Your task to perform on an android device: open sync settings in chrome Image 0: 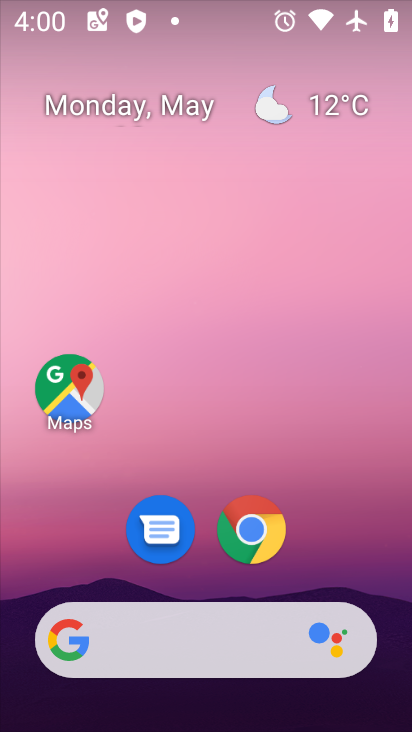
Step 0: click (248, 532)
Your task to perform on an android device: open sync settings in chrome Image 1: 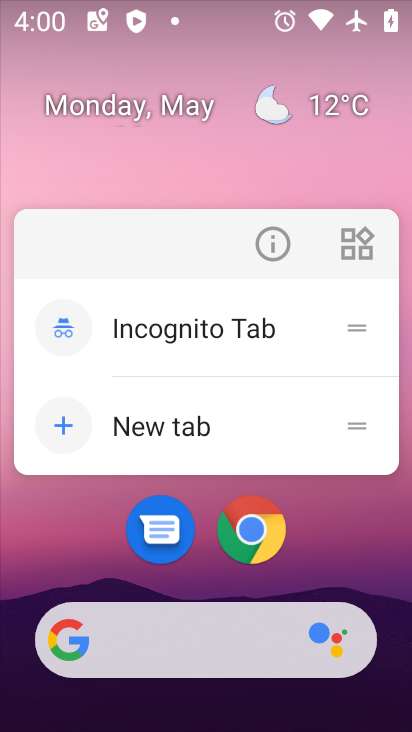
Step 1: click (248, 532)
Your task to perform on an android device: open sync settings in chrome Image 2: 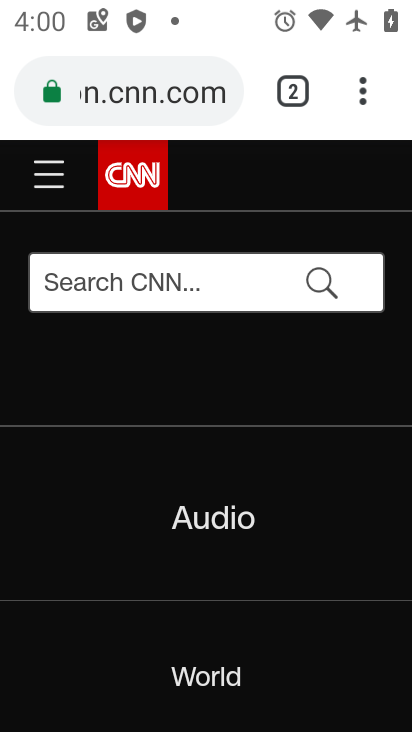
Step 2: click (363, 90)
Your task to perform on an android device: open sync settings in chrome Image 3: 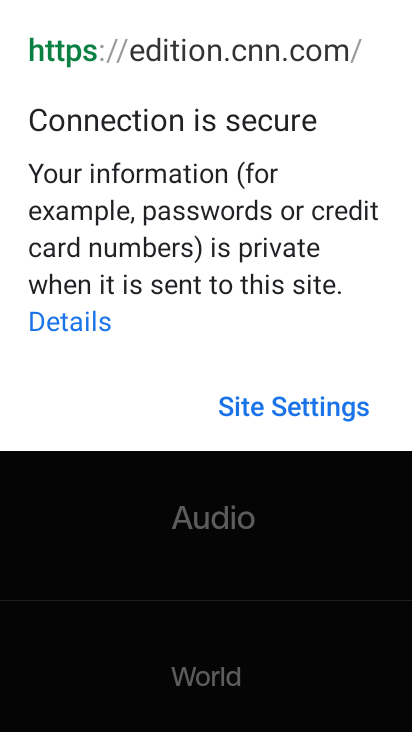
Step 3: click (288, 542)
Your task to perform on an android device: open sync settings in chrome Image 4: 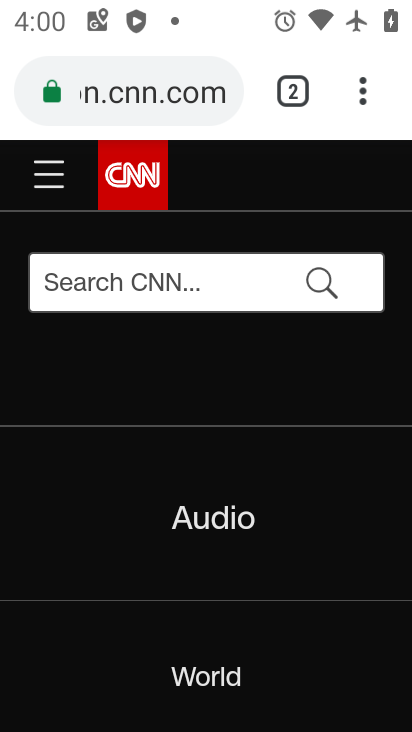
Step 4: click (357, 90)
Your task to perform on an android device: open sync settings in chrome Image 5: 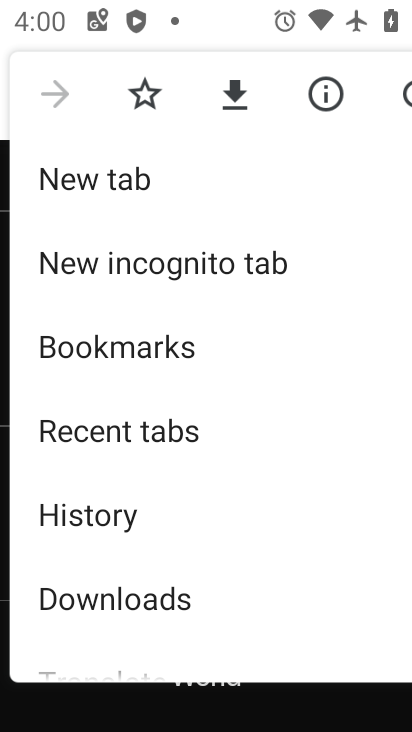
Step 5: drag from (198, 614) to (172, 301)
Your task to perform on an android device: open sync settings in chrome Image 6: 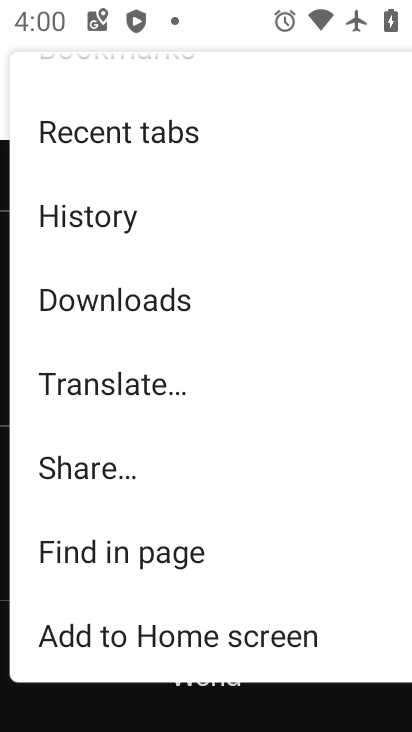
Step 6: drag from (182, 610) to (192, 404)
Your task to perform on an android device: open sync settings in chrome Image 7: 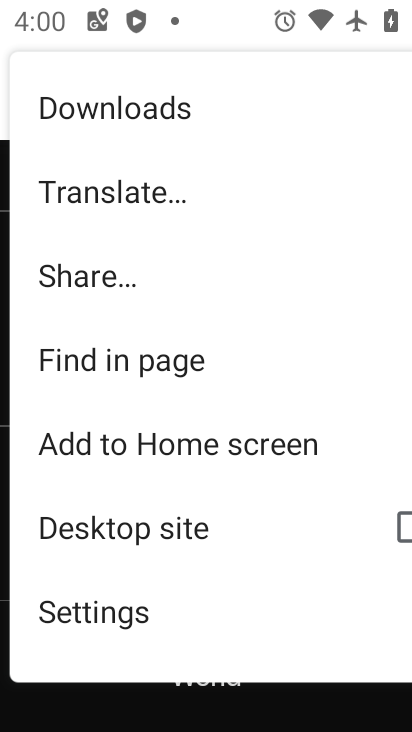
Step 7: click (131, 615)
Your task to perform on an android device: open sync settings in chrome Image 8: 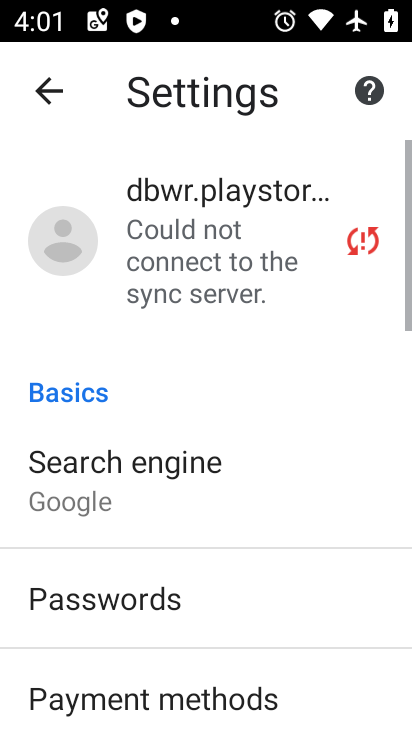
Step 8: click (226, 276)
Your task to perform on an android device: open sync settings in chrome Image 9: 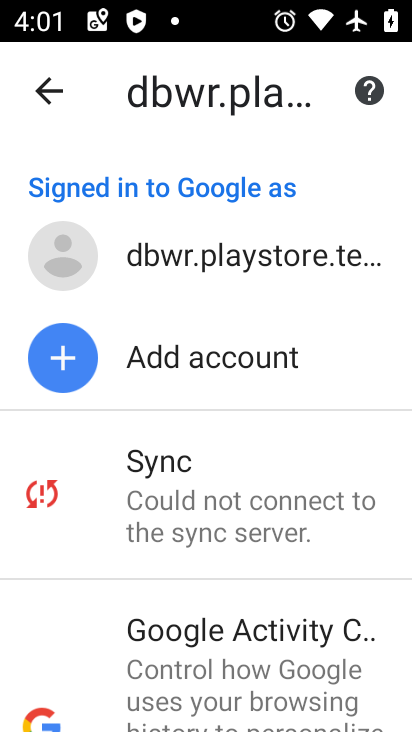
Step 9: click (189, 522)
Your task to perform on an android device: open sync settings in chrome Image 10: 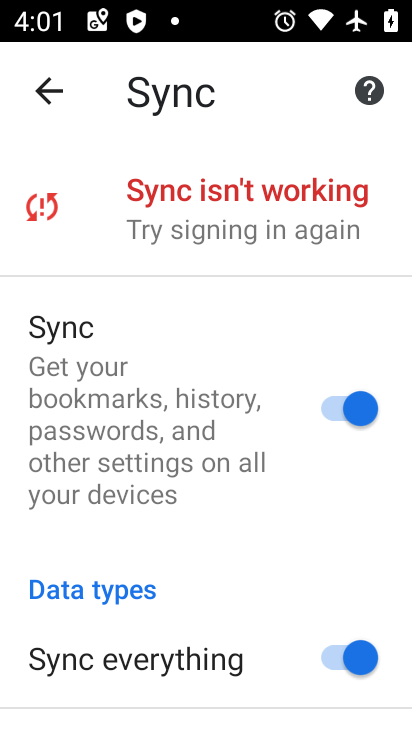
Step 10: task complete